Your task to perform on an android device: uninstall "Truecaller" Image 0: 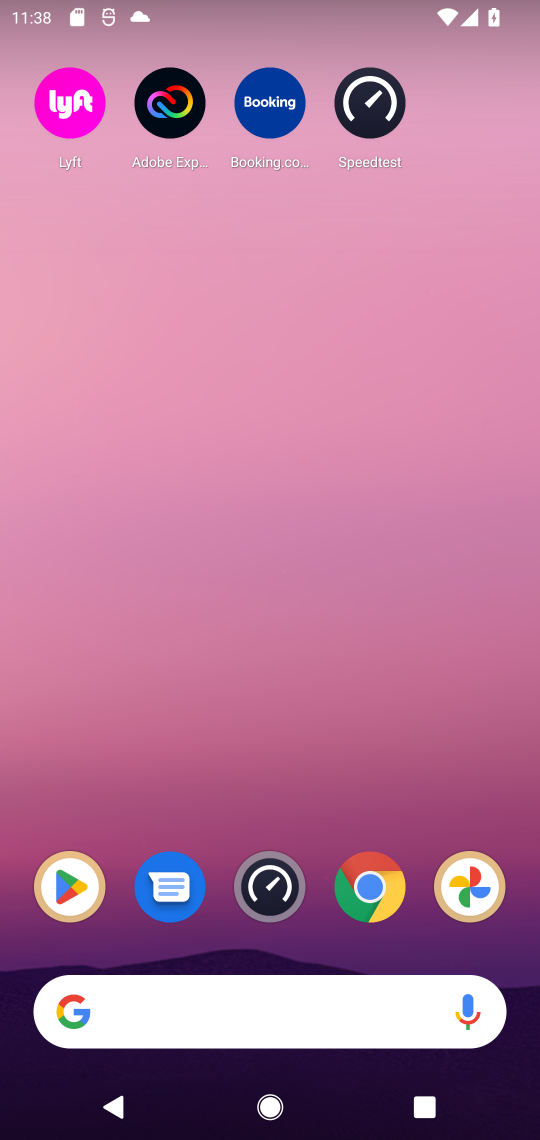
Step 0: drag from (208, 997) to (330, 85)
Your task to perform on an android device: uninstall "Truecaller" Image 1: 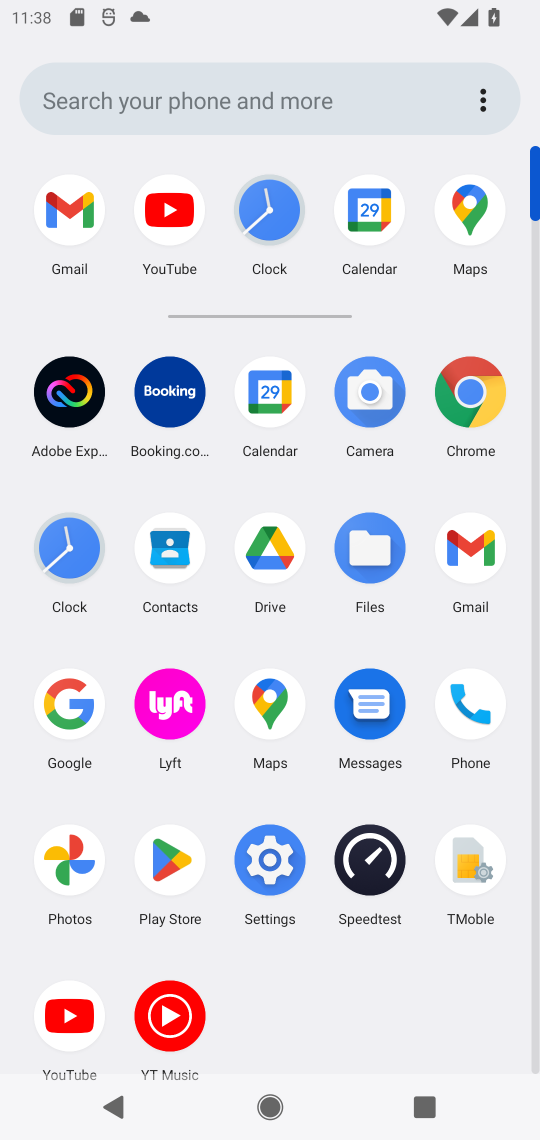
Step 1: click (172, 862)
Your task to perform on an android device: uninstall "Truecaller" Image 2: 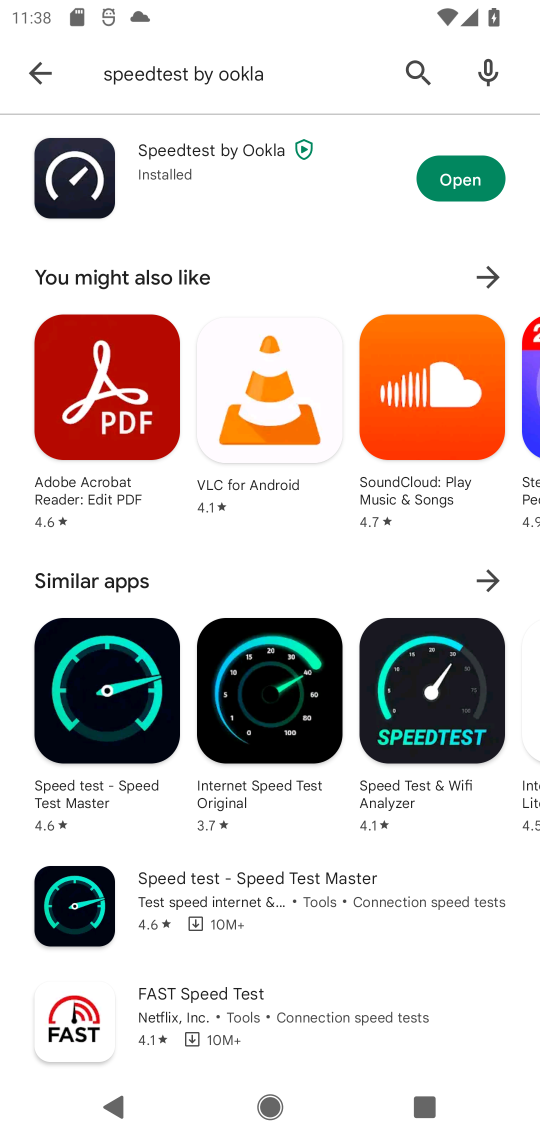
Step 2: click (406, 74)
Your task to perform on an android device: uninstall "Truecaller" Image 3: 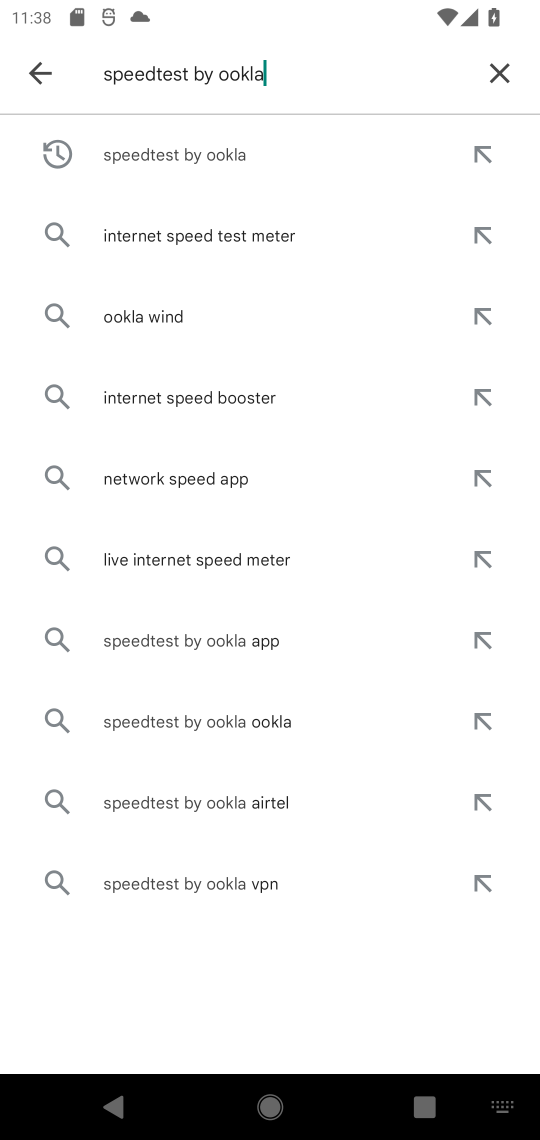
Step 3: click (497, 75)
Your task to perform on an android device: uninstall "Truecaller" Image 4: 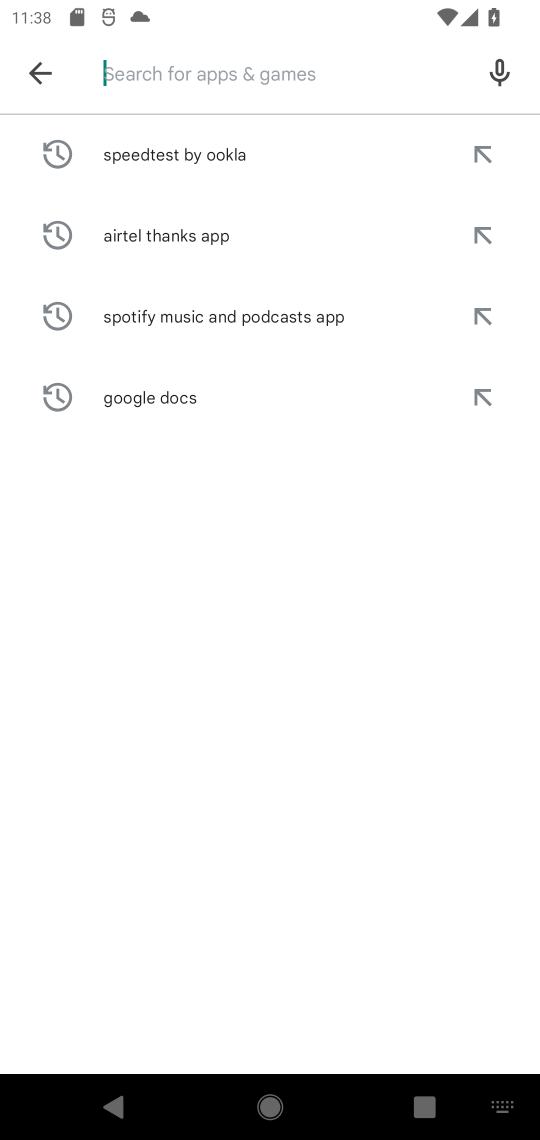
Step 4: type "Truecaller"
Your task to perform on an android device: uninstall "Truecaller" Image 5: 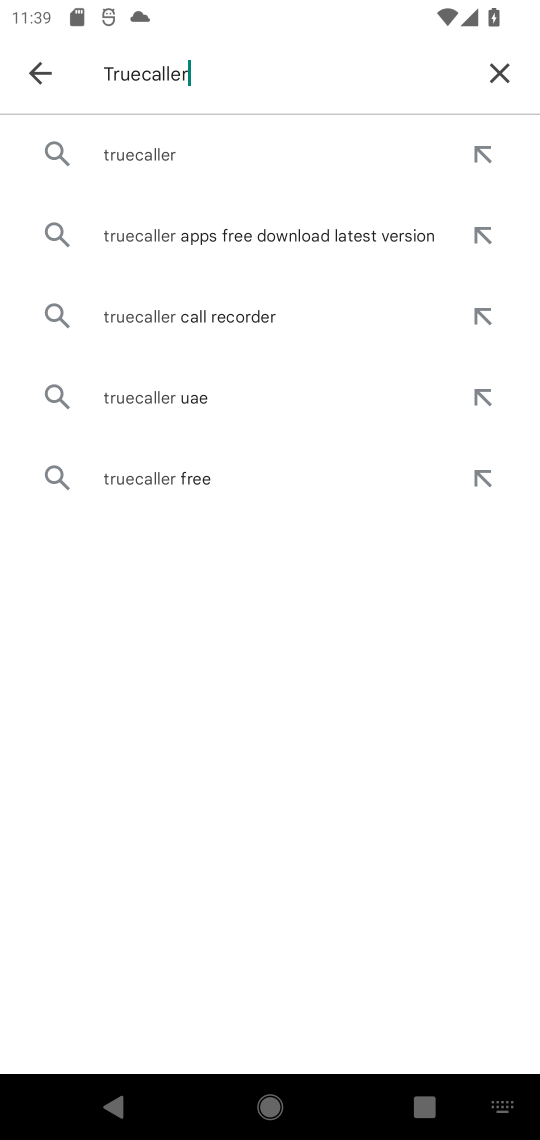
Step 5: click (146, 163)
Your task to perform on an android device: uninstall "Truecaller" Image 6: 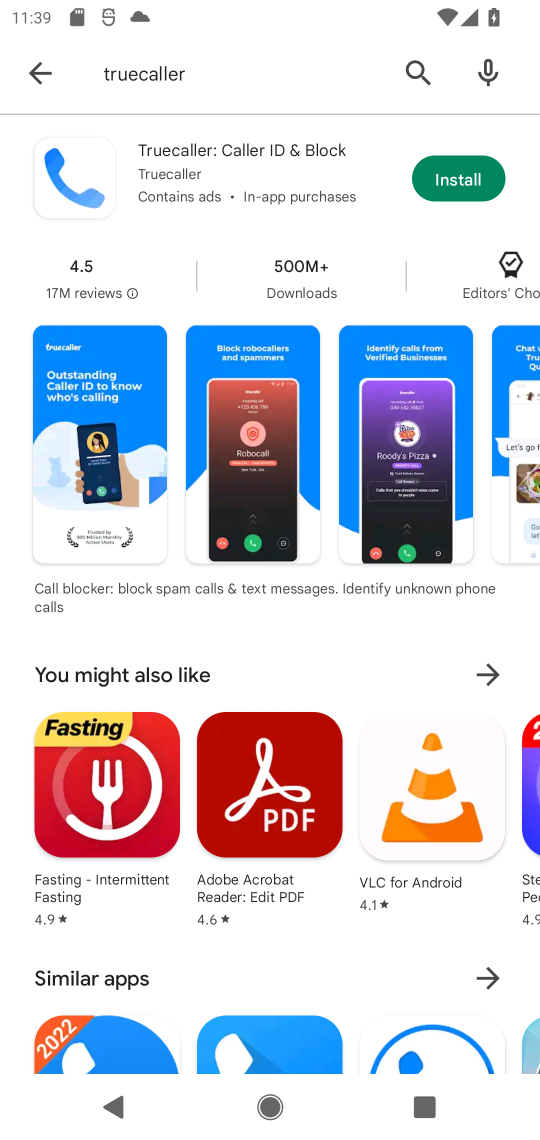
Step 6: task complete